Your task to perform on an android device: Open internet settings Image 0: 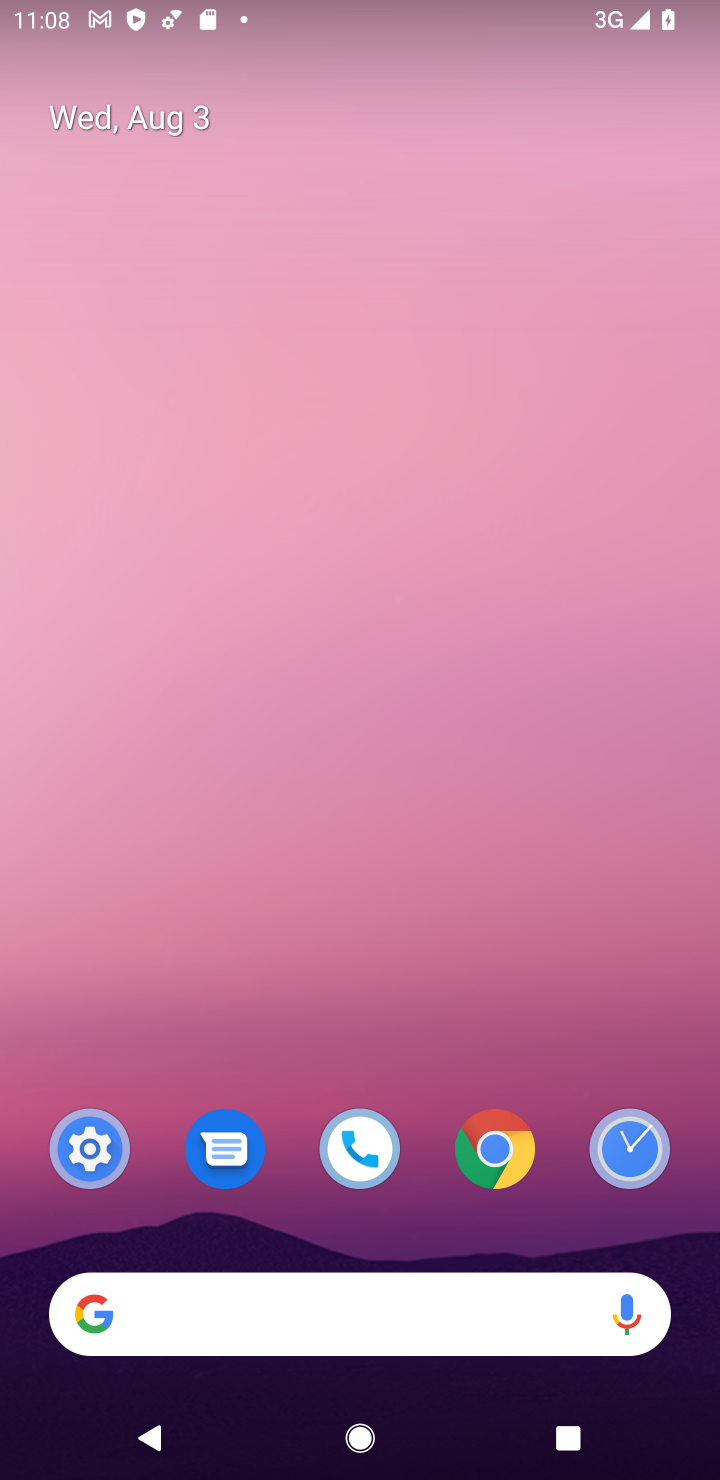
Step 0: drag from (529, 1041) to (586, 75)
Your task to perform on an android device: Open internet settings Image 1: 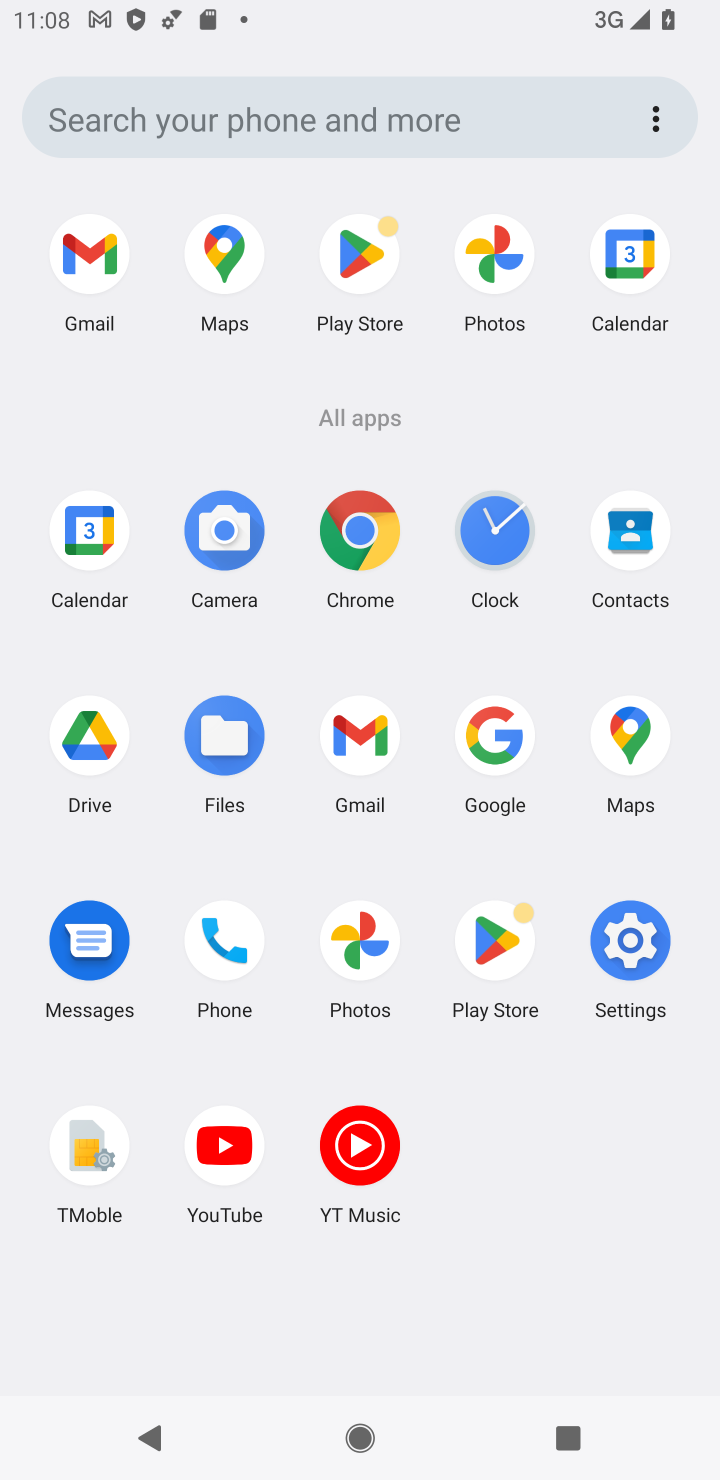
Step 1: click (620, 965)
Your task to perform on an android device: Open internet settings Image 2: 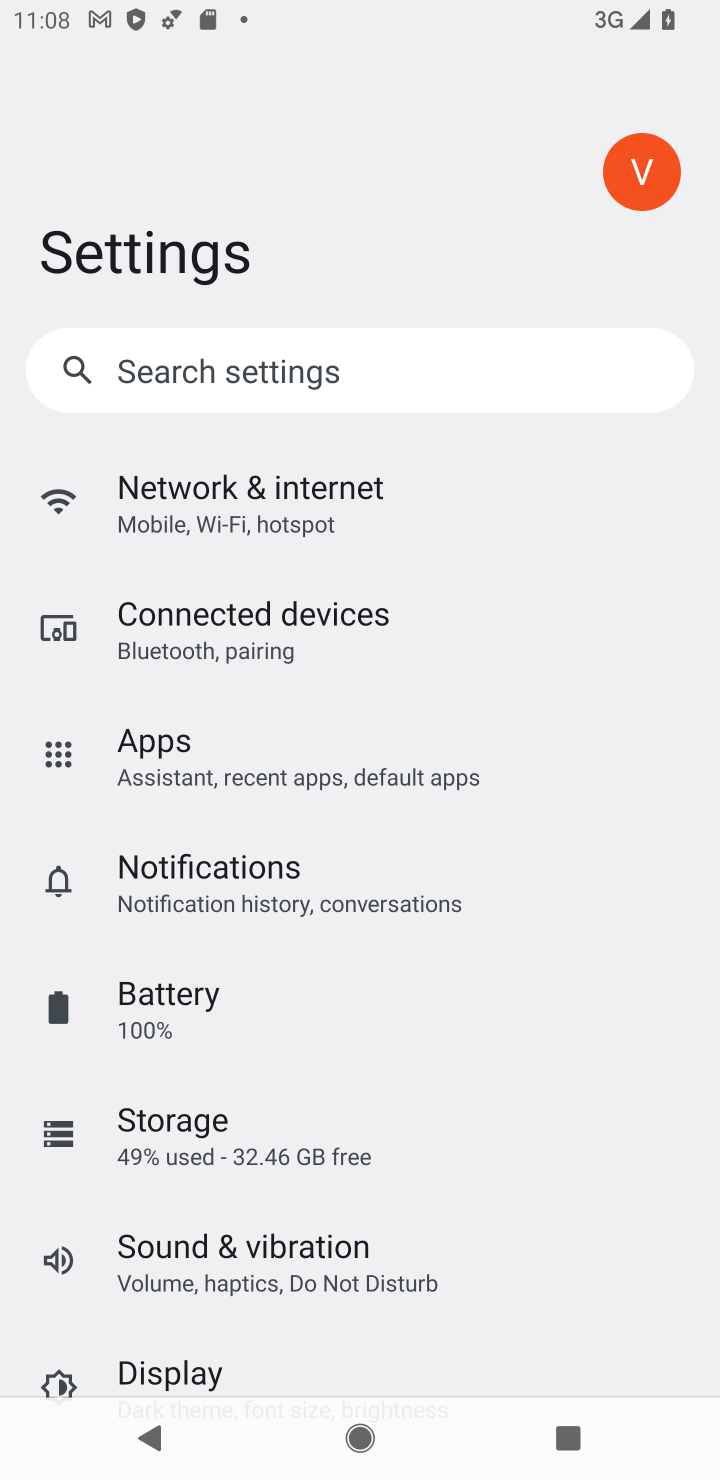
Step 2: click (302, 530)
Your task to perform on an android device: Open internet settings Image 3: 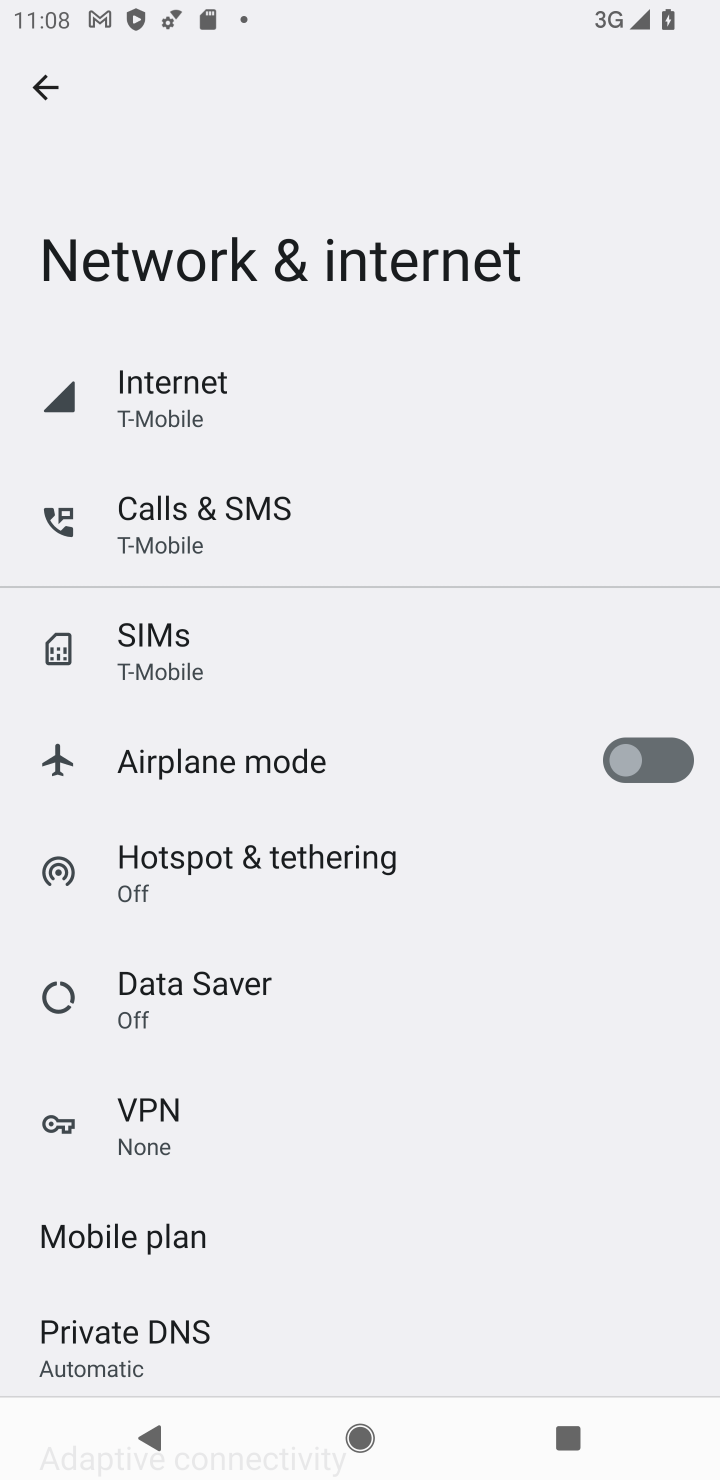
Step 3: click (387, 403)
Your task to perform on an android device: Open internet settings Image 4: 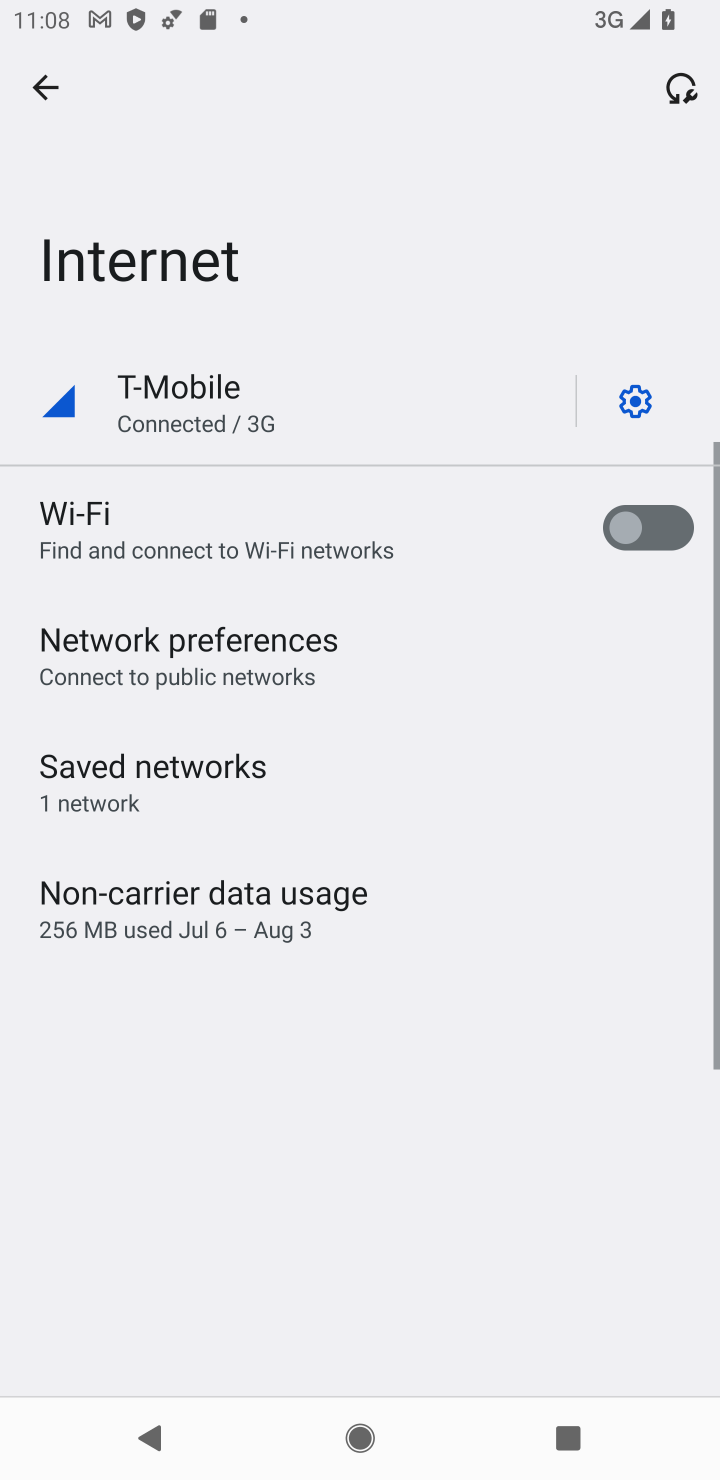
Step 4: task complete